Your task to perform on an android device: Go to battery settings Image 0: 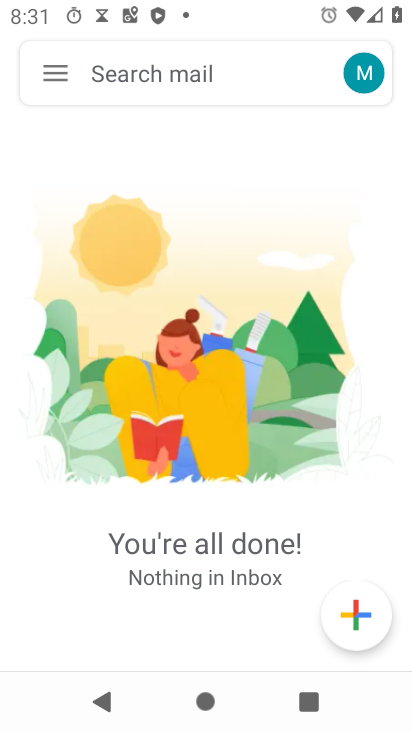
Step 0: press home button
Your task to perform on an android device: Go to battery settings Image 1: 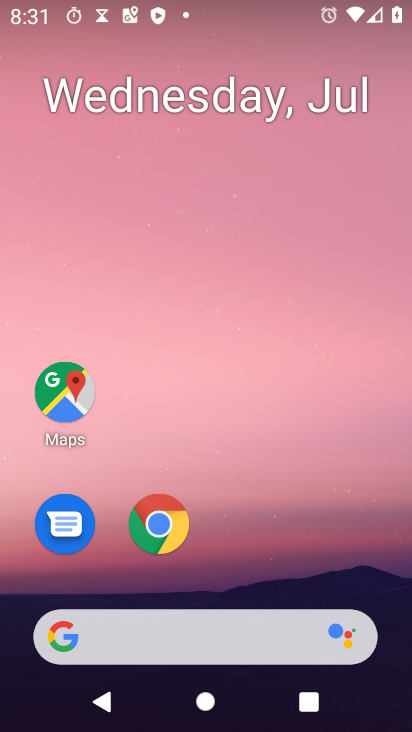
Step 1: drag from (180, 638) to (236, 46)
Your task to perform on an android device: Go to battery settings Image 2: 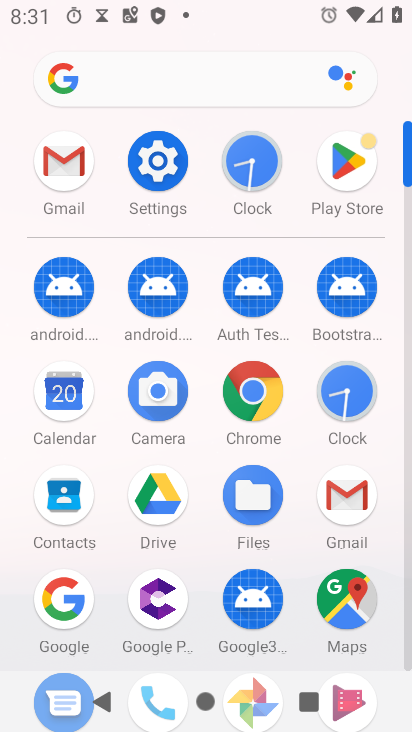
Step 2: click (161, 167)
Your task to perform on an android device: Go to battery settings Image 3: 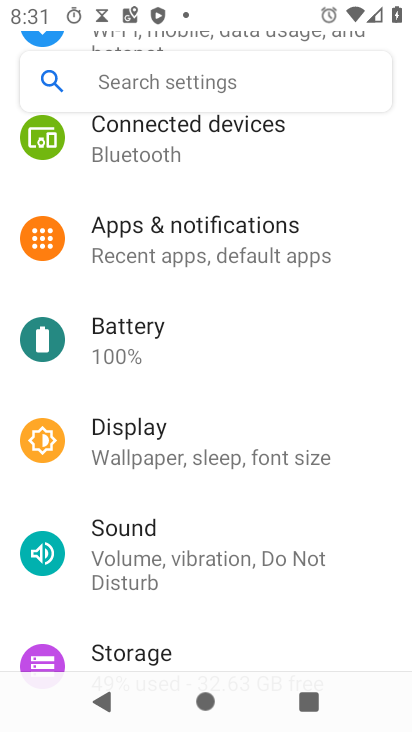
Step 3: click (127, 336)
Your task to perform on an android device: Go to battery settings Image 4: 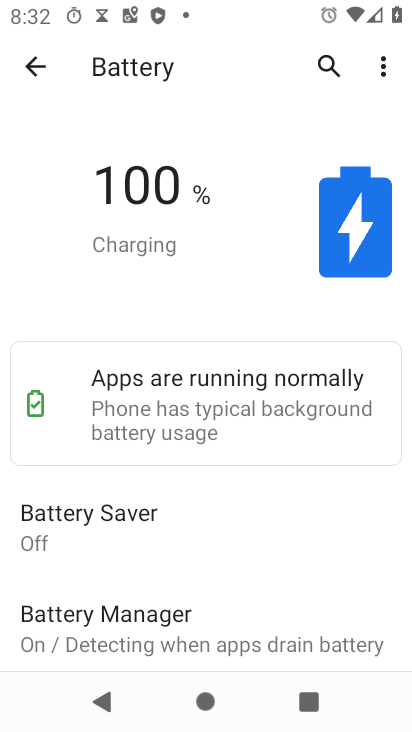
Step 4: task complete